Your task to perform on an android device: open a new tab in the chrome app Image 0: 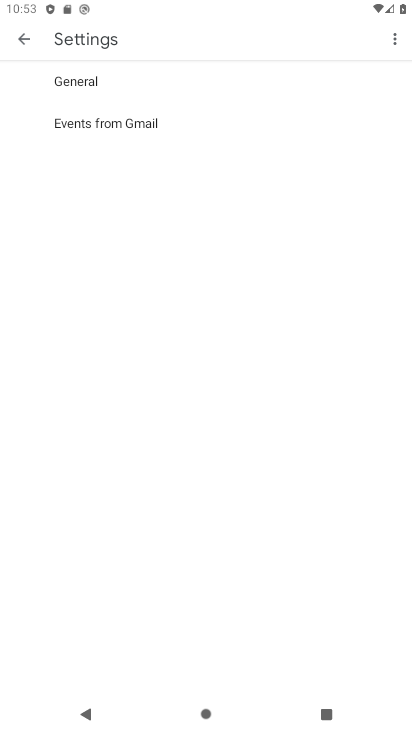
Step 0: press home button
Your task to perform on an android device: open a new tab in the chrome app Image 1: 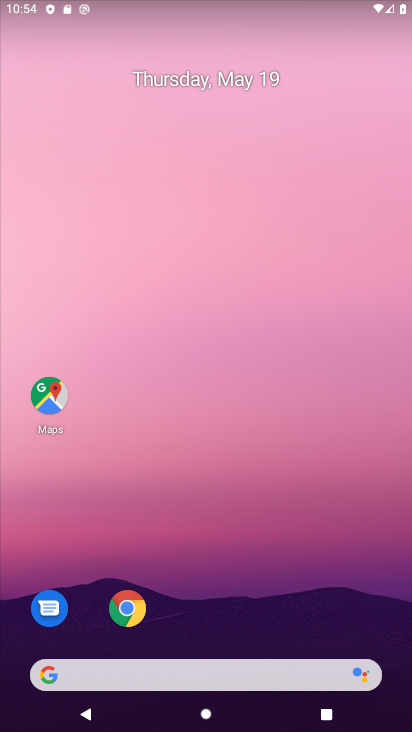
Step 1: click (117, 606)
Your task to perform on an android device: open a new tab in the chrome app Image 2: 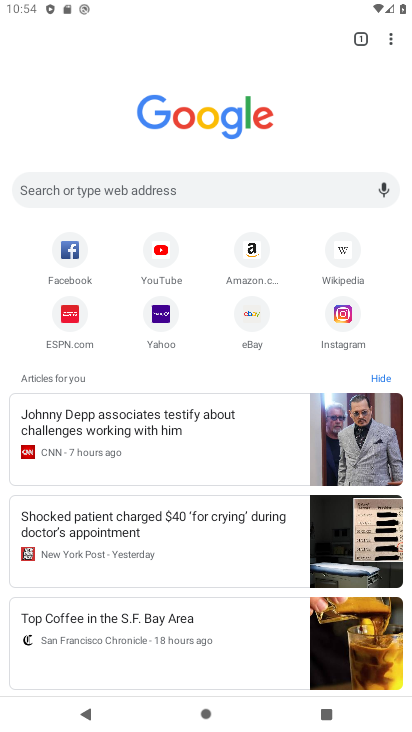
Step 2: task complete